Your task to perform on an android device: see creations saved in the google photos Image 0: 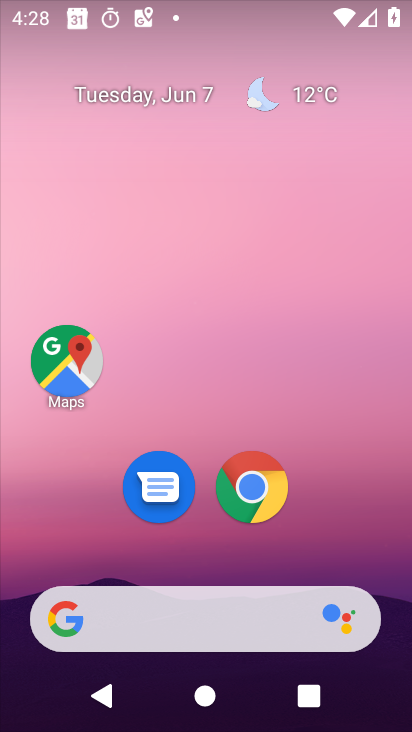
Step 0: drag from (173, 573) to (255, 15)
Your task to perform on an android device: see creations saved in the google photos Image 1: 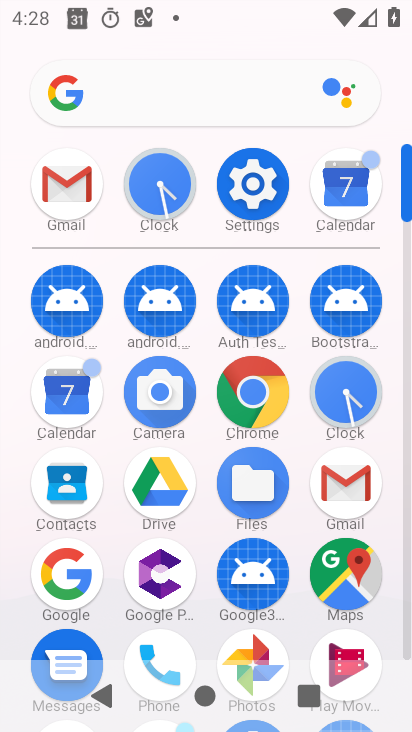
Step 1: click (259, 644)
Your task to perform on an android device: see creations saved in the google photos Image 2: 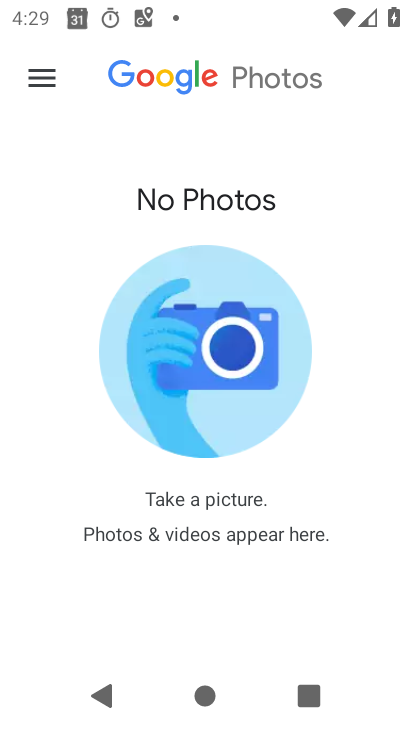
Step 2: click (54, 80)
Your task to perform on an android device: see creations saved in the google photos Image 3: 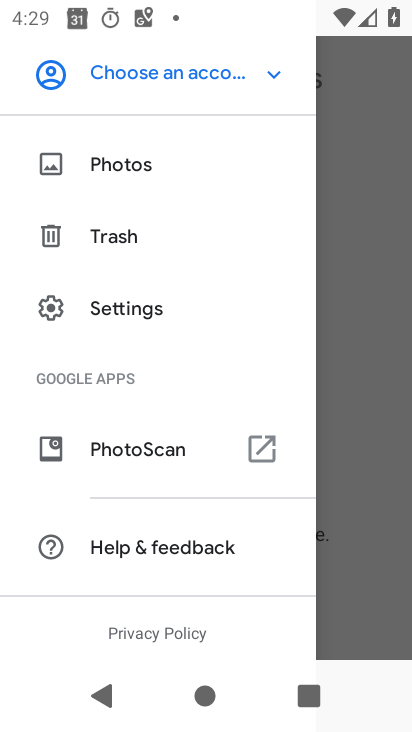
Step 3: task complete